Your task to perform on an android device: Go to calendar. Show me events next week Image 0: 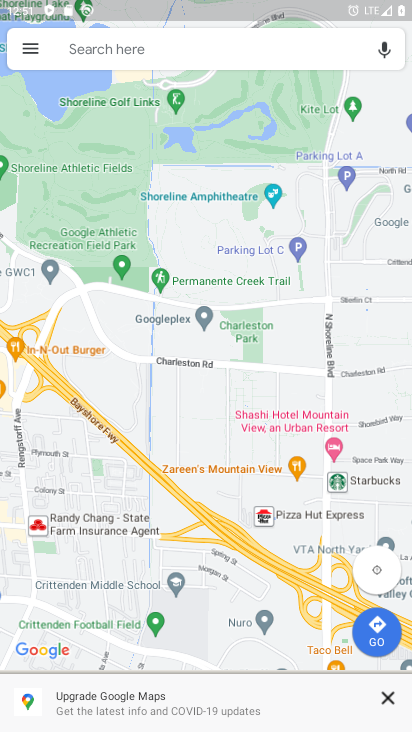
Step 0: press home button
Your task to perform on an android device: Go to calendar. Show me events next week Image 1: 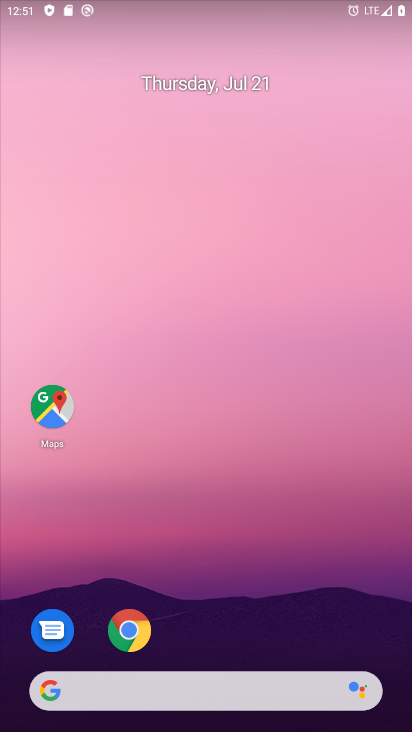
Step 1: click (233, 70)
Your task to perform on an android device: Go to calendar. Show me events next week Image 2: 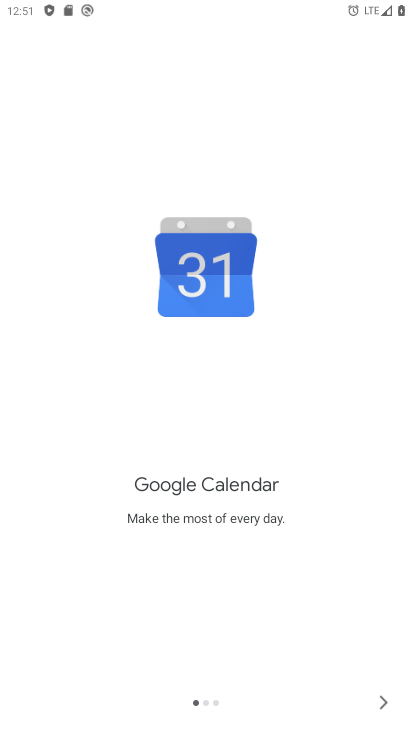
Step 2: click (379, 707)
Your task to perform on an android device: Go to calendar. Show me events next week Image 3: 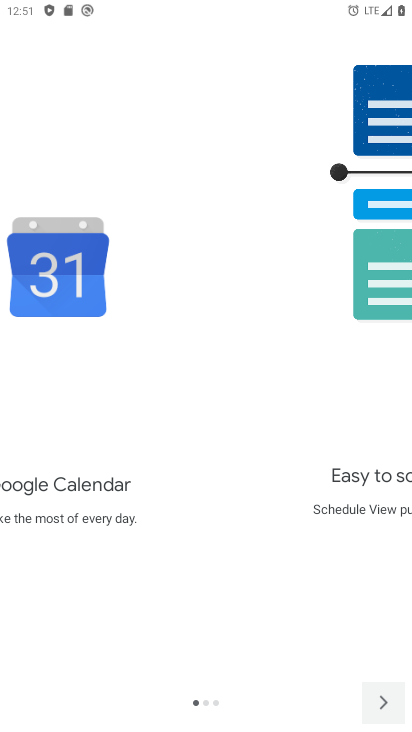
Step 3: click (379, 707)
Your task to perform on an android device: Go to calendar. Show me events next week Image 4: 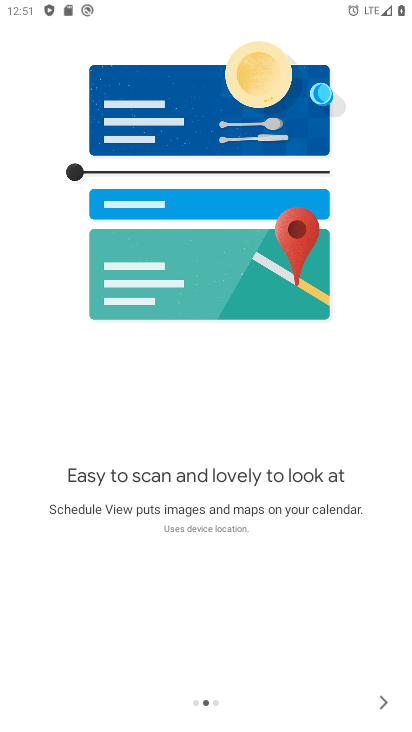
Step 4: click (379, 707)
Your task to perform on an android device: Go to calendar. Show me events next week Image 5: 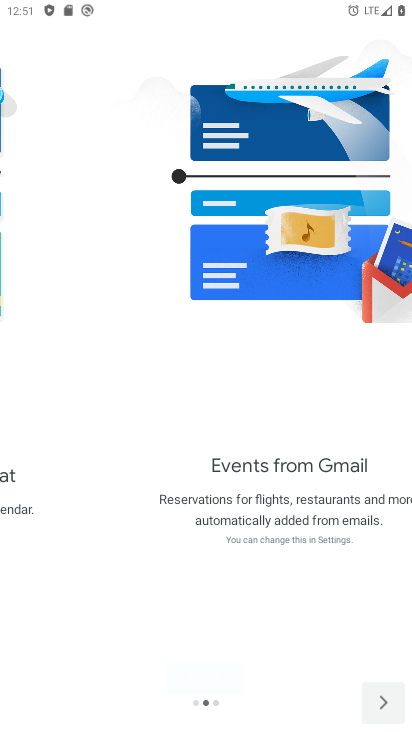
Step 5: click (379, 707)
Your task to perform on an android device: Go to calendar. Show me events next week Image 6: 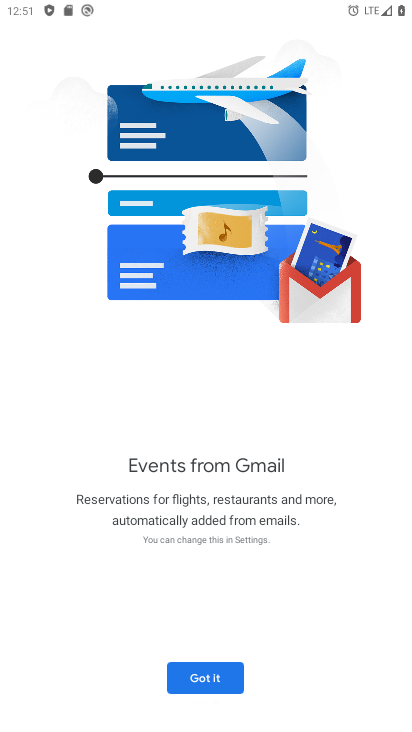
Step 6: click (379, 707)
Your task to perform on an android device: Go to calendar. Show me events next week Image 7: 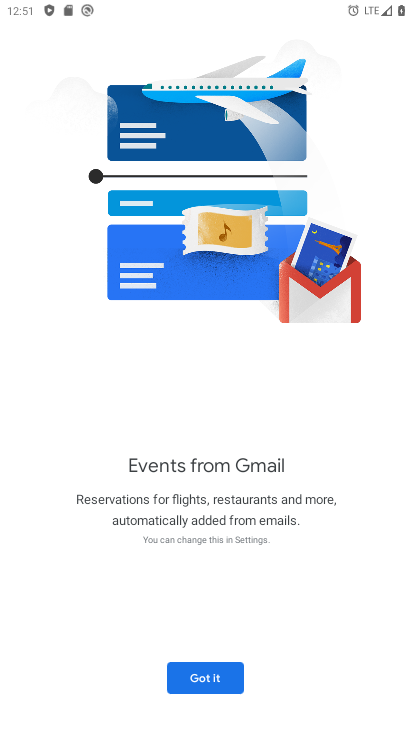
Step 7: click (379, 707)
Your task to perform on an android device: Go to calendar. Show me events next week Image 8: 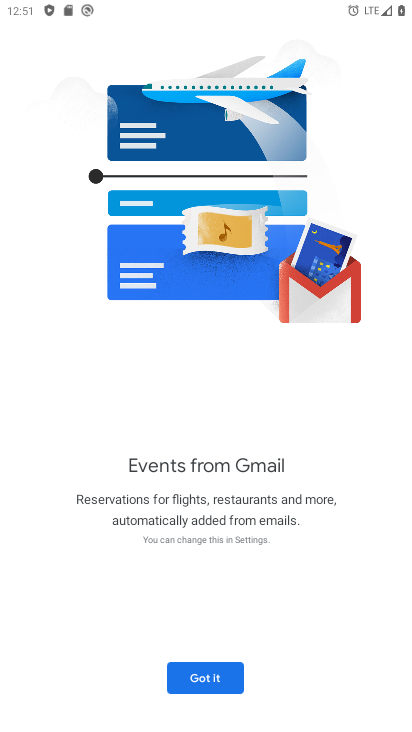
Step 8: click (379, 707)
Your task to perform on an android device: Go to calendar. Show me events next week Image 9: 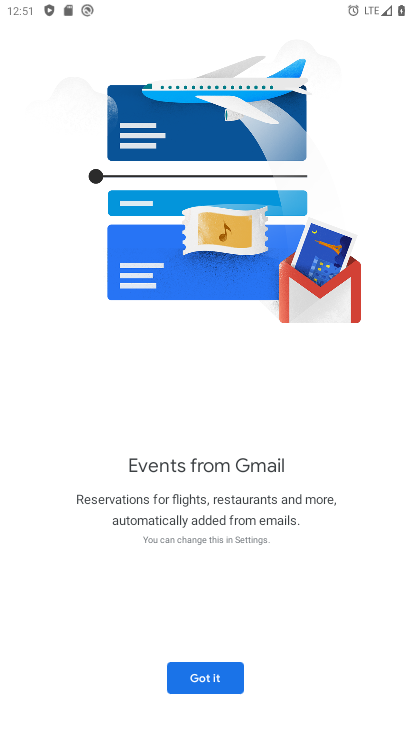
Step 9: click (379, 707)
Your task to perform on an android device: Go to calendar. Show me events next week Image 10: 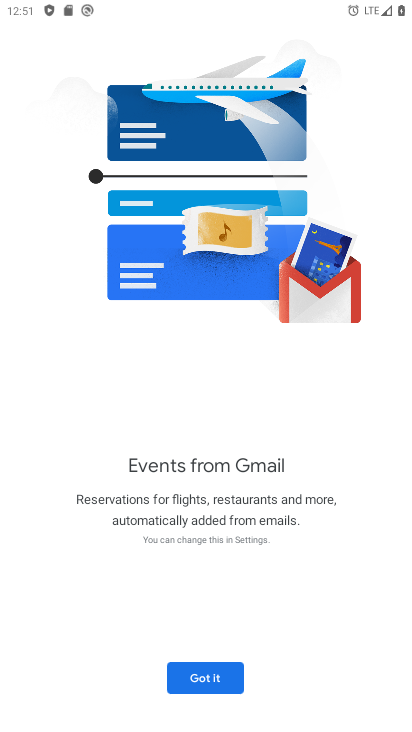
Step 10: click (379, 707)
Your task to perform on an android device: Go to calendar. Show me events next week Image 11: 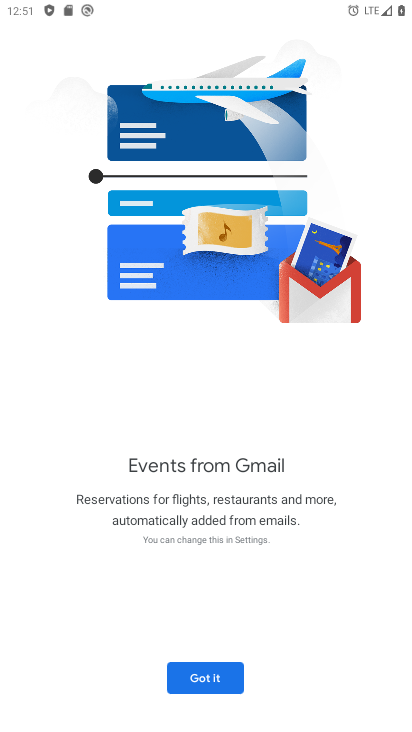
Step 11: click (225, 670)
Your task to perform on an android device: Go to calendar. Show me events next week Image 12: 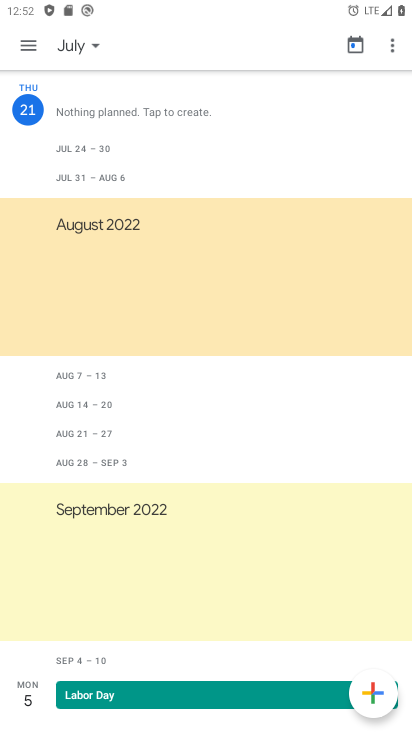
Step 12: click (95, 60)
Your task to perform on an android device: Go to calendar. Show me events next week Image 13: 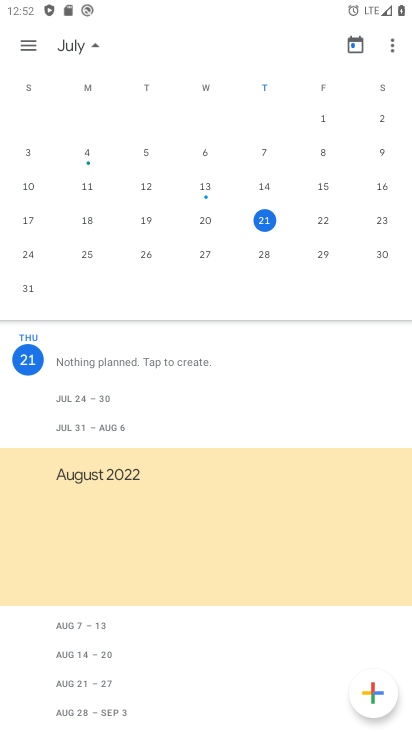
Step 13: click (271, 259)
Your task to perform on an android device: Go to calendar. Show me events next week Image 14: 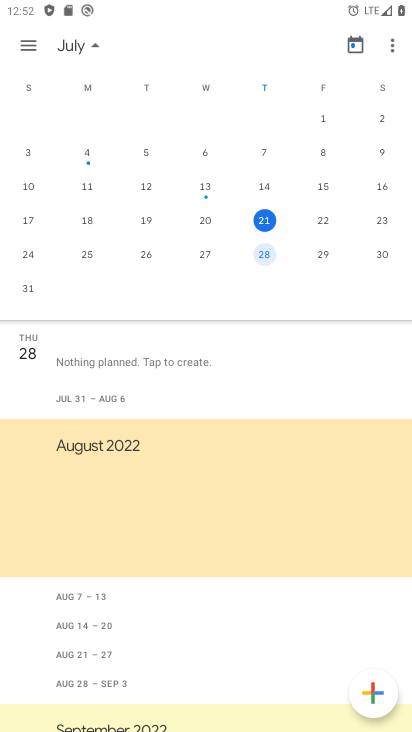
Step 14: task complete